Your task to perform on an android device: toggle pop-ups in chrome Image 0: 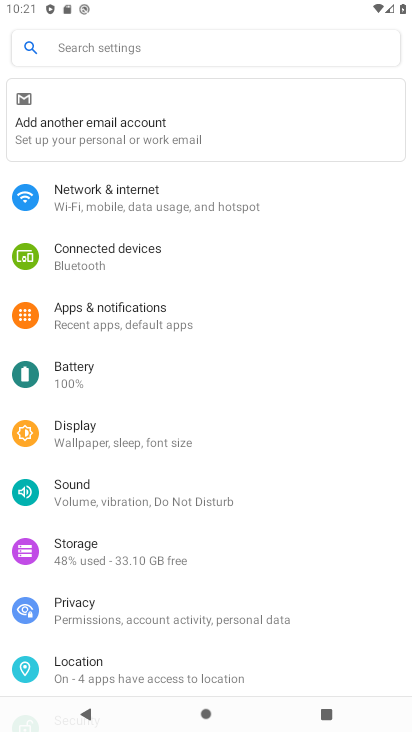
Step 0: press home button
Your task to perform on an android device: toggle pop-ups in chrome Image 1: 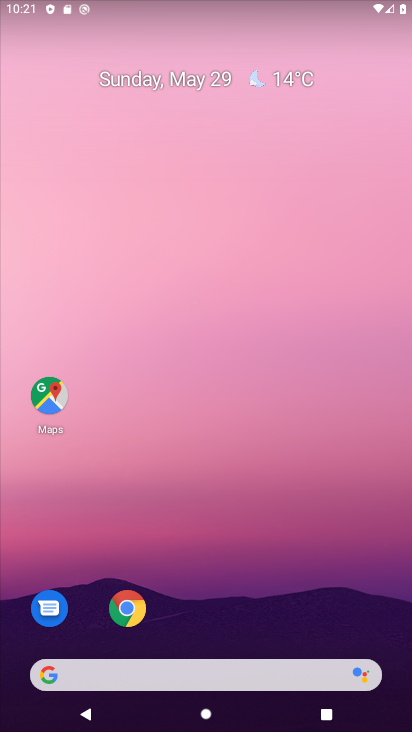
Step 1: click (145, 614)
Your task to perform on an android device: toggle pop-ups in chrome Image 2: 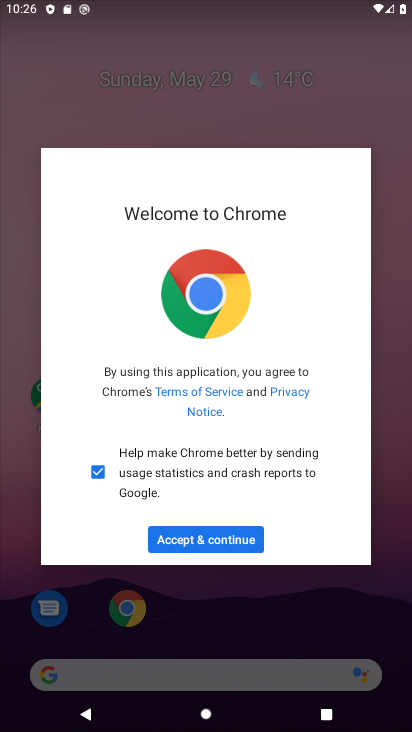
Step 2: click (209, 538)
Your task to perform on an android device: toggle pop-ups in chrome Image 3: 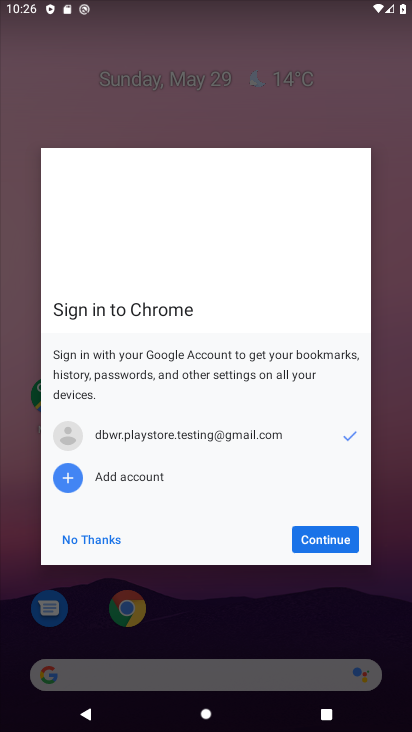
Step 3: click (324, 541)
Your task to perform on an android device: toggle pop-ups in chrome Image 4: 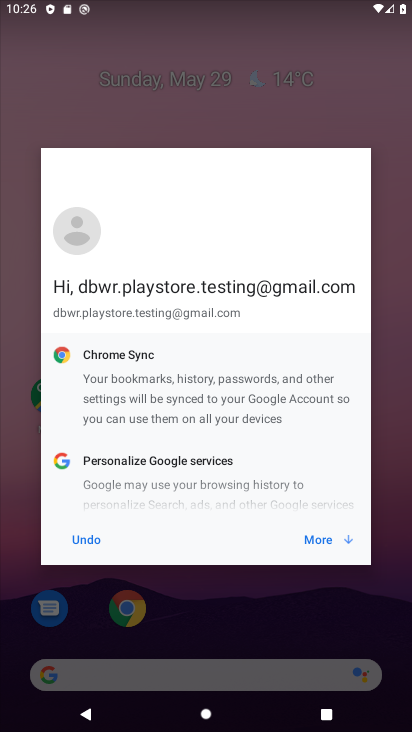
Step 4: click (319, 538)
Your task to perform on an android device: toggle pop-ups in chrome Image 5: 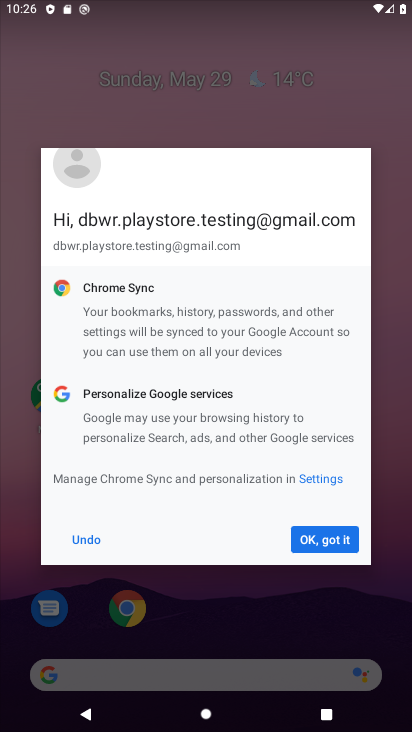
Step 5: click (320, 537)
Your task to perform on an android device: toggle pop-ups in chrome Image 6: 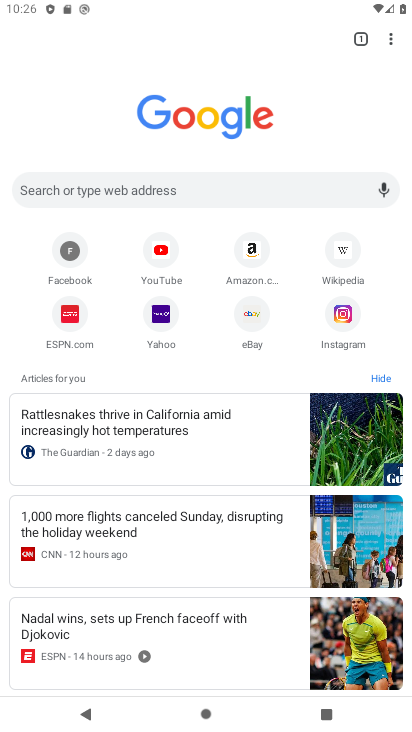
Step 6: click (393, 36)
Your task to perform on an android device: toggle pop-ups in chrome Image 7: 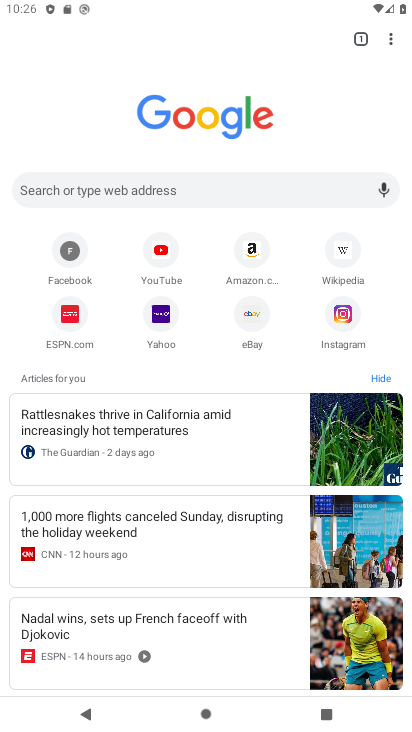
Step 7: click (390, 43)
Your task to perform on an android device: toggle pop-ups in chrome Image 8: 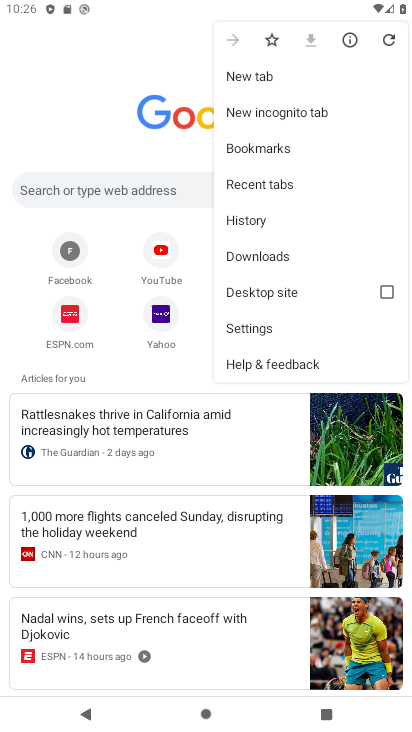
Step 8: click (261, 328)
Your task to perform on an android device: toggle pop-ups in chrome Image 9: 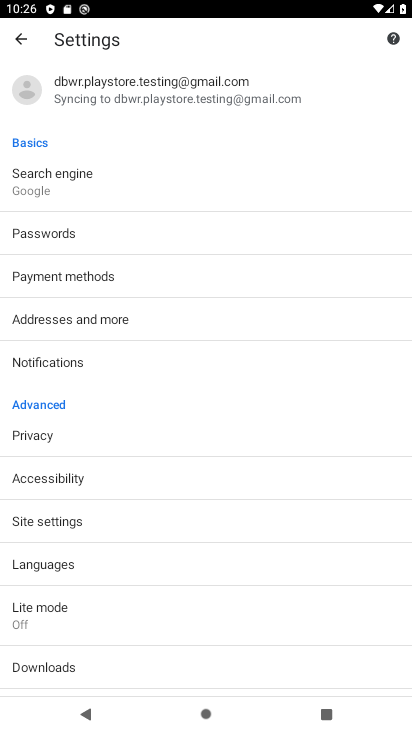
Step 9: click (38, 521)
Your task to perform on an android device: toggle pop-ups in chrome Image 10: 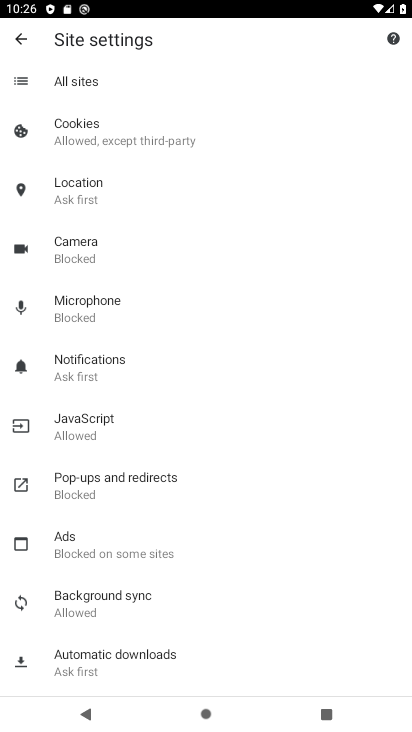
Step 10: click (105, 479)
Your task to perform on an android device: toggle pop-ups in chrome Image 11: 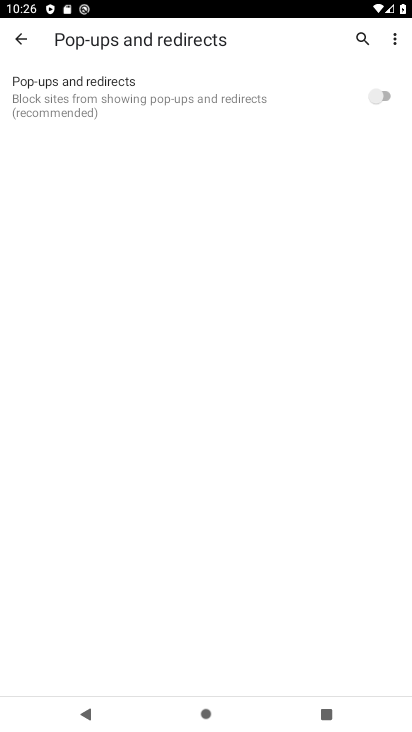
Step 11: click (388, 96)
Your task to perform on an android device: toggle pop-ups in chrome Image 12: 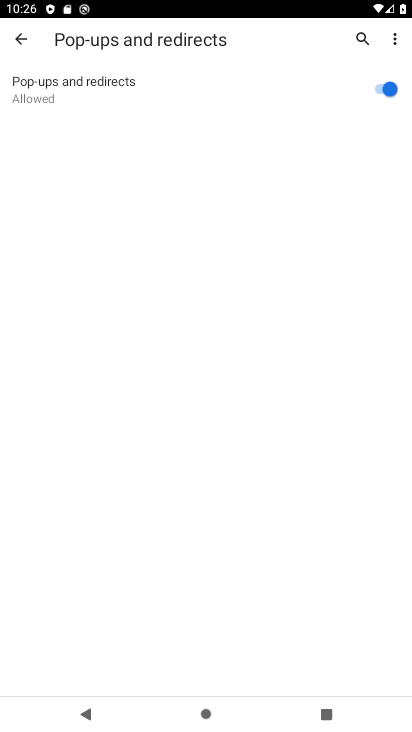
Step 12: task complete